Your task to perform on an android device: Go to location settings Image 0: 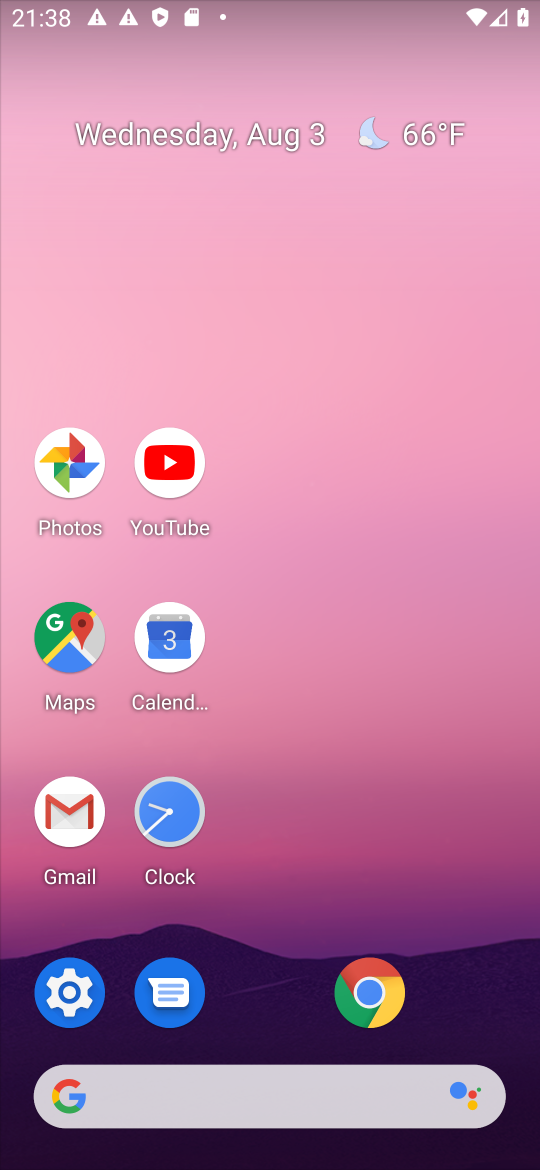
Step 0: click (59, 999)
Your task to perform on an android device: Go to location settings Image 1: 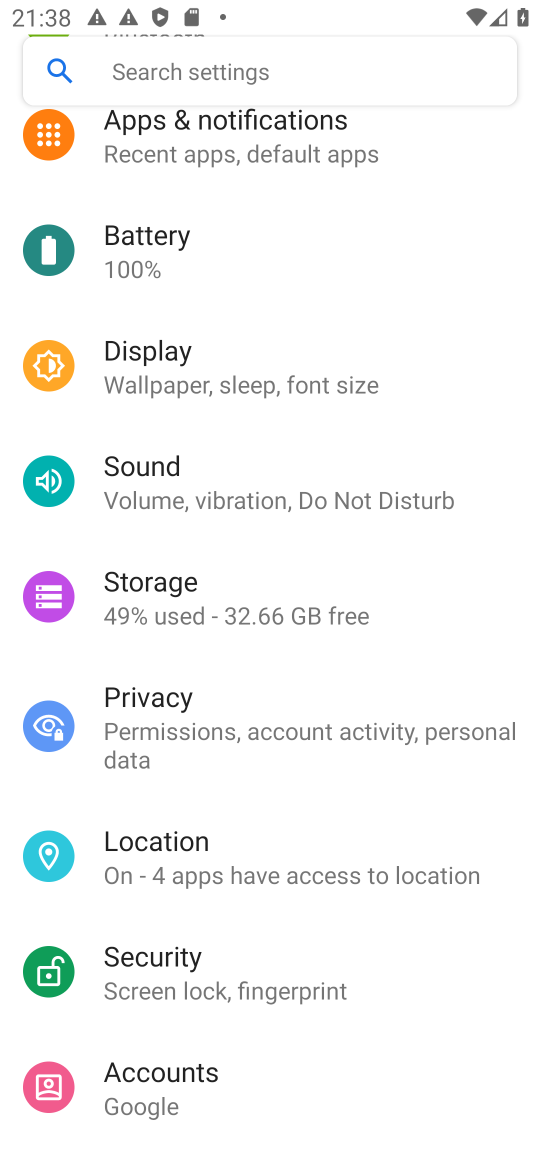
Step 1: click (172, 849)
Your task to perform on an android device: Go to location settings Image 2: 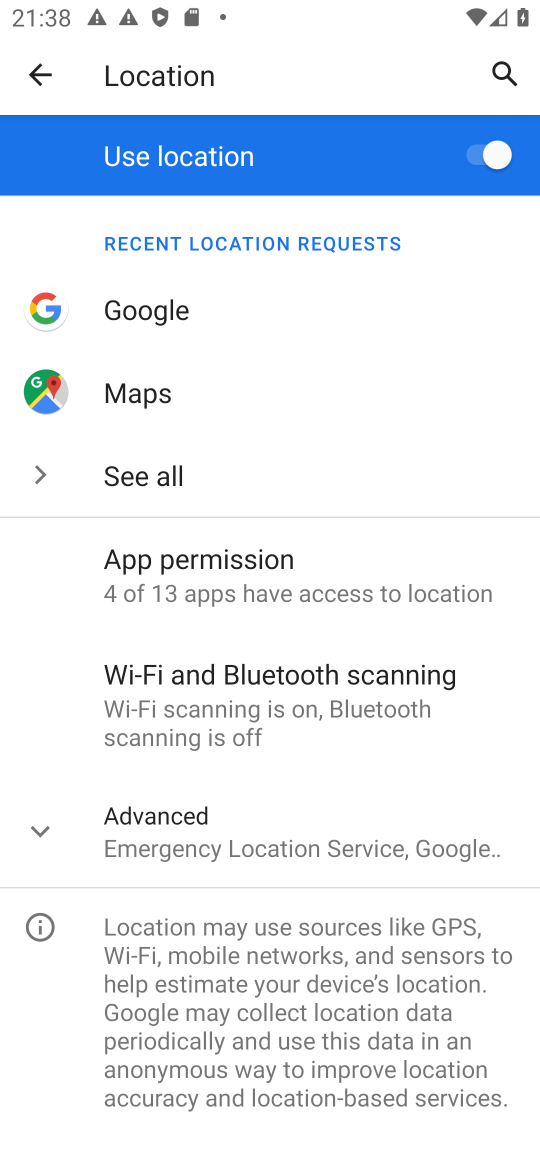
Step 2: task complete